Your task to perform on an android device: Open Android settings Image 0: 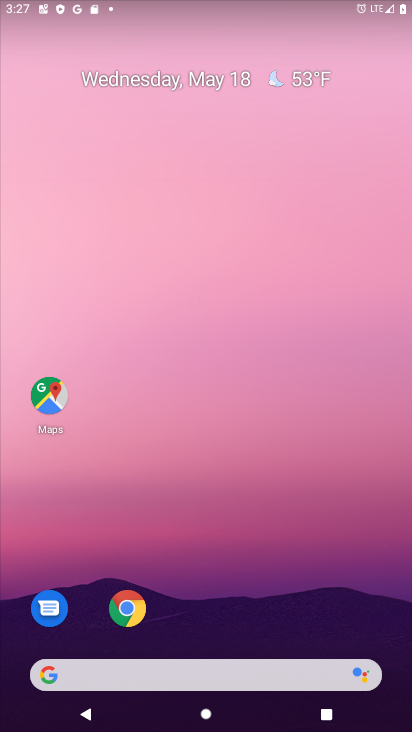
Step 0: drag from (328, 647) to (272, 18)
Your task to perform on an android device: Open Android settings Image 1: 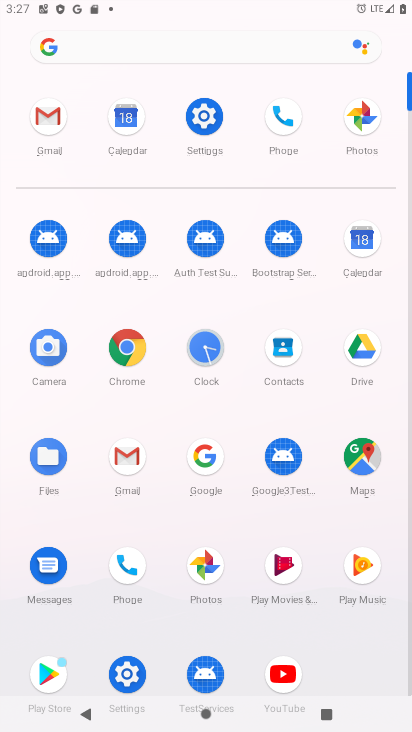
Step 1: click (214, 122)
Your task to perform on an android device: Open Android settings Image 2: 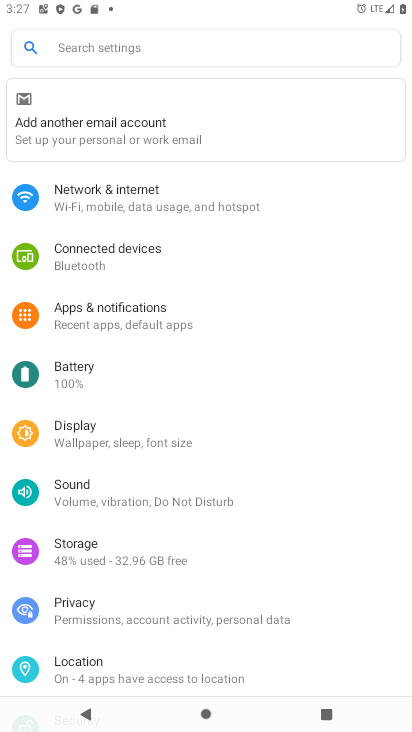
Step 2: task complete